Your task to perform on an android device: open app "Microsoft Outlook" (install if not already installed) and go to login screen Image 0: 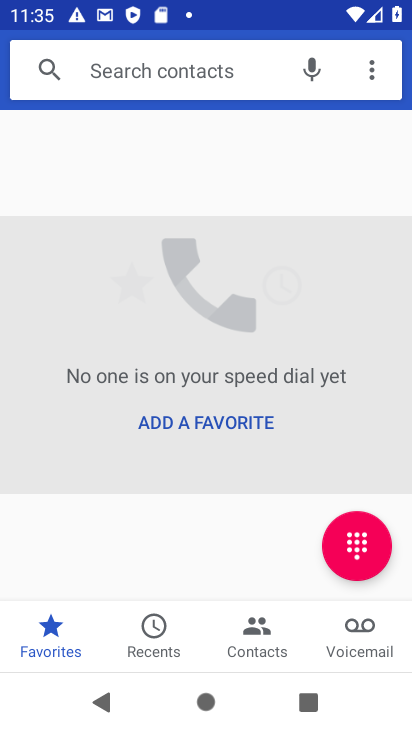
Step 0: press home button
Your task to perform on an android device: open app "Microsoft Outlook" (install if not already installed) and go to login screen Image 1: 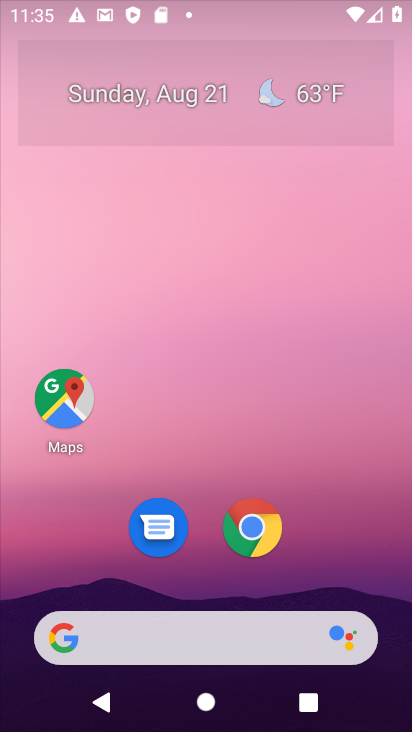
Step 1: drag from (263, 589) to (87, 722)
Your task to perform on an android device: open app "Microsoft Outlook" (install if not already installed) and go to login screen Image 2: 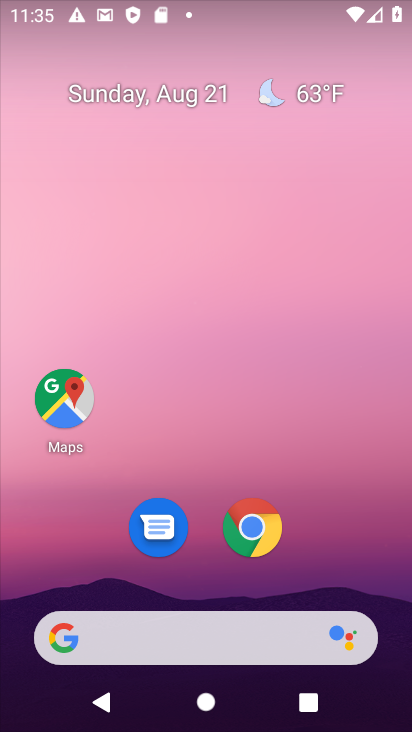
Step 2: drag from (258, 599) to (317, 19)
Your task to perform on an android device: open app "Microsoft Outlook" (install if not already installed) and go to login screen Image 3: 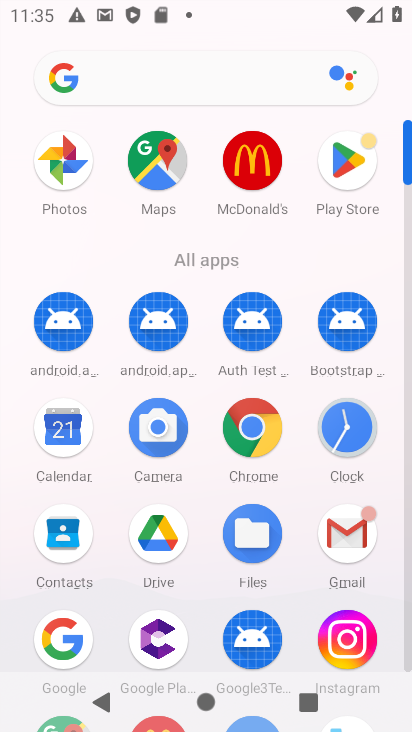
Step 3: click (352, 162)
Your task to perform on an android device: open app "Microsoft Outlook" (install if not already installed) and go to login screen Image 4: 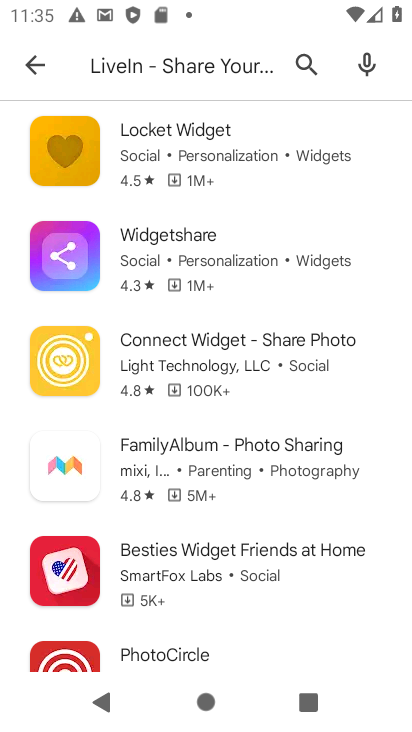
Step 4: press back button
Your task to perform on an android device: open app "Microsoft Outlook" (install if not already installed) and go to login screen Image 5: 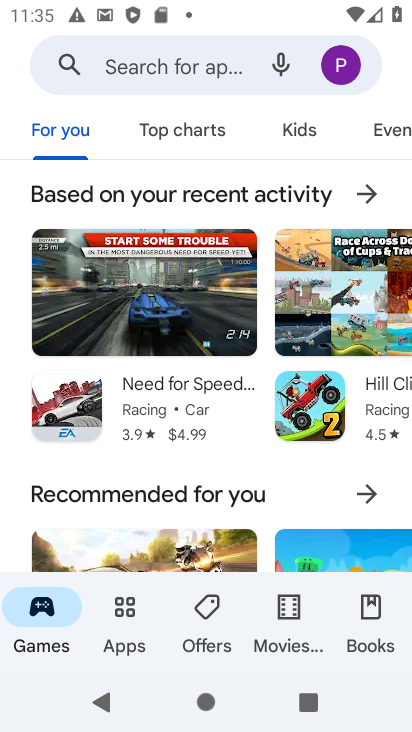
Step 5: click (107, 67)
Your task to perform on an android device: open app "Microsoft Outlook" (install if not already installed) and go to login screen Image 6: 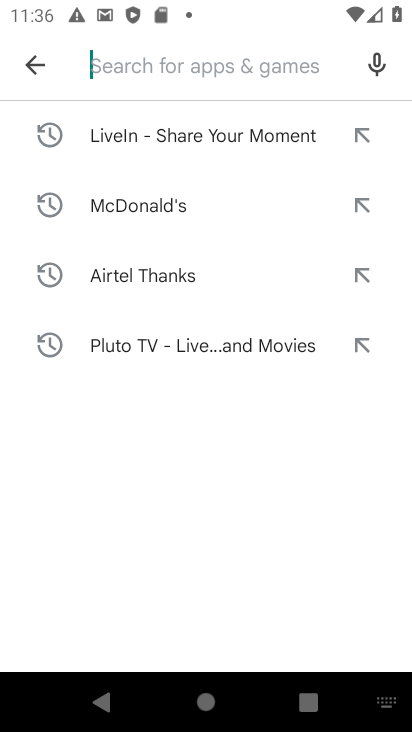
Step 6: type "Microsoft Outlook"
Your task to perform on an android device: open app "Microsoft Outlook" (install if not already installed) and go to login screen Image 7: 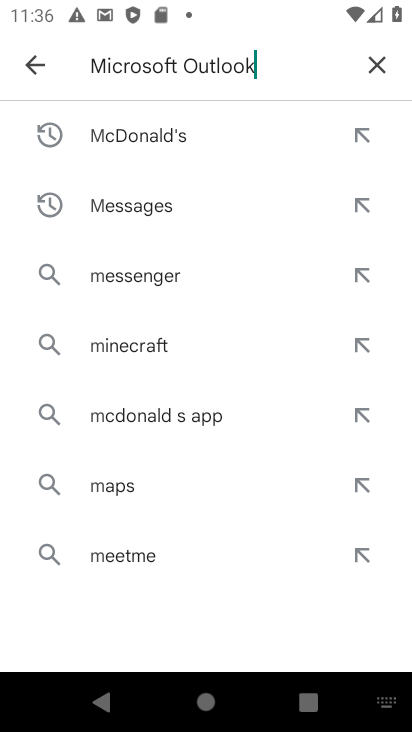
Step 7: press enter
Your task to perform on an android device: open app "Microsoft Outlook" (install if not already installed) and go to login screen Image 8: 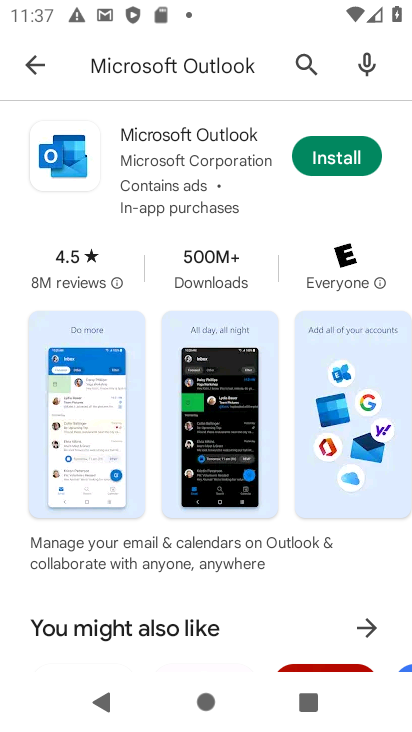
Step 8: click (322, 162)
Your task to perform on an android device: open app "Microsoft Outlook" (install if not already installed) and go to login screen Image 9: 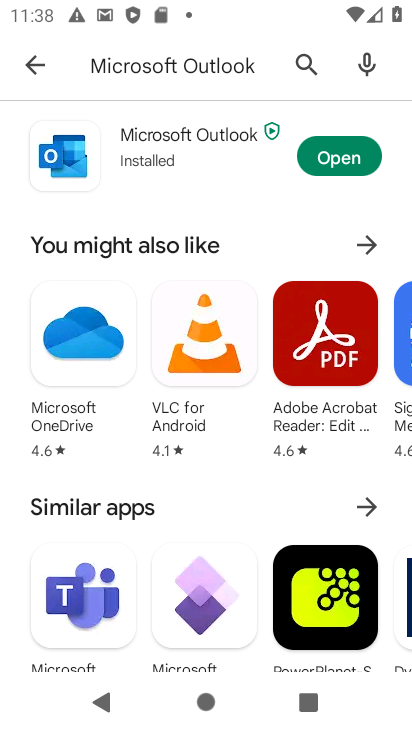
Step 9: click (309, 174)
Your task to perform on an android device: open app "Microsoft Outlook" (install if not already installed) and go to login screen Image 10: 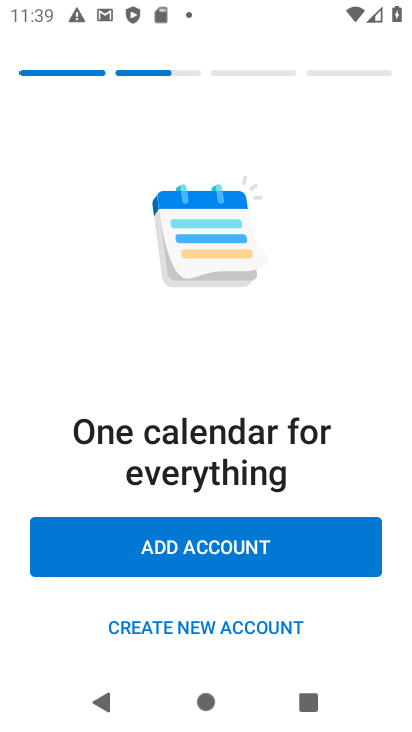
Step 10: click (203, 542)
Your task to perform on an android device: open app "Microsoft Outlook" (install if not already installed) and go to login screen Image 11: 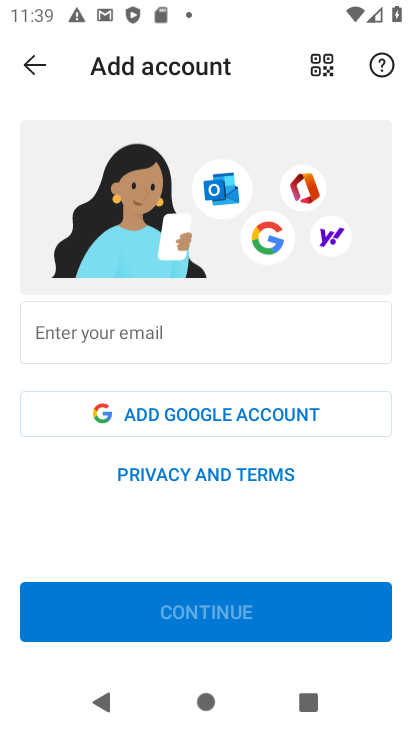
Step 11: click (235, 632)
Your task to perform on an android device: open app "Microsoft Outlook" (install if not already installed) and go to login screen Image 12: 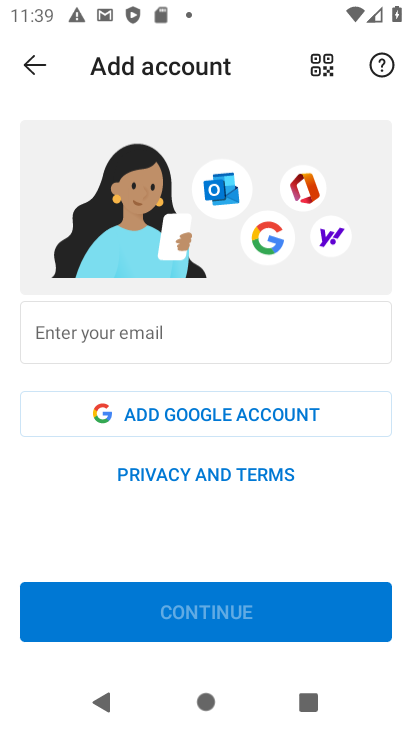
Step 12: click (149, 429)
Your task to perform on an android device: open app "Microsoft Outlook" (install if not already installed) and go to login screen Image 13: 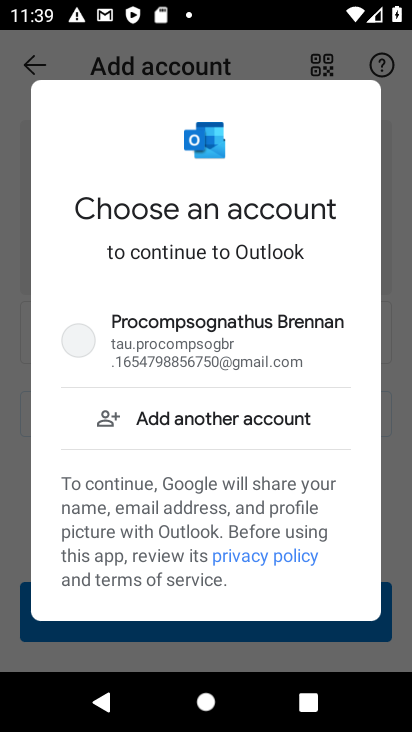
Step 13: task complete